Your task to perform on an android device: toggle notifications settings in the gmail app Image 0: 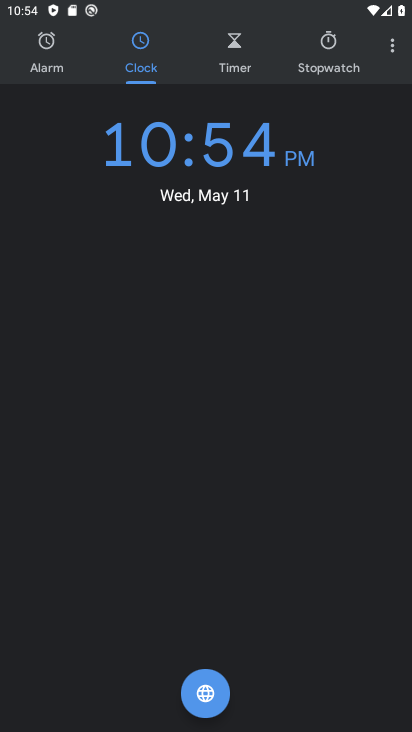
Step 0: press home button
Your task to perform on an android device: toggle notifications settings in the gmail app Image 1: 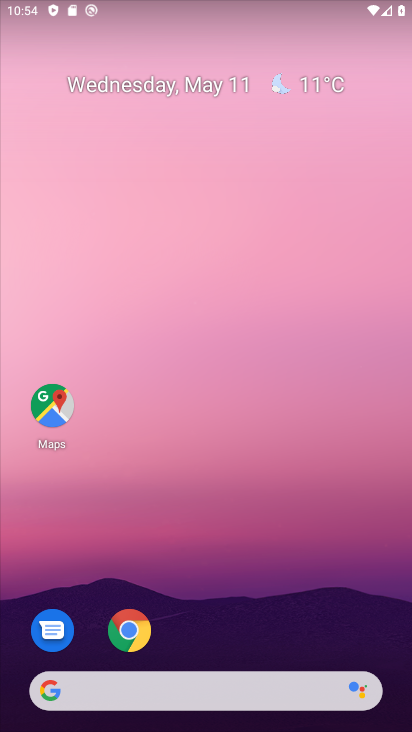
Step 1: drag from (179, 643) to (224, 308)
Your task to perform on an android device: toggle notifications settings in the gmail app Image 2: 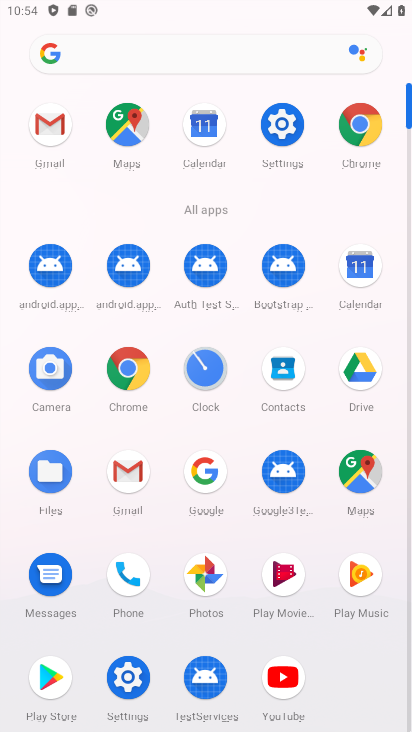
Step 2: click (125, 473)
Your task to perform on an android device: toggle notifications settings in the gmail app Image 3: 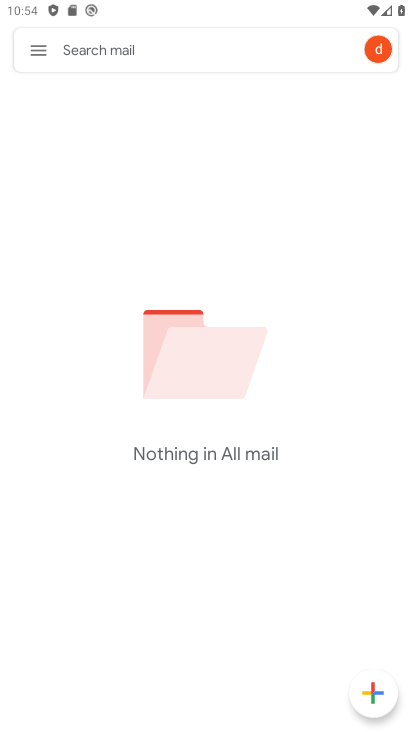
Step 3: click (44, 61)
Your task to perform on an android device: toggle notifications settings in the gmail app Image 4: 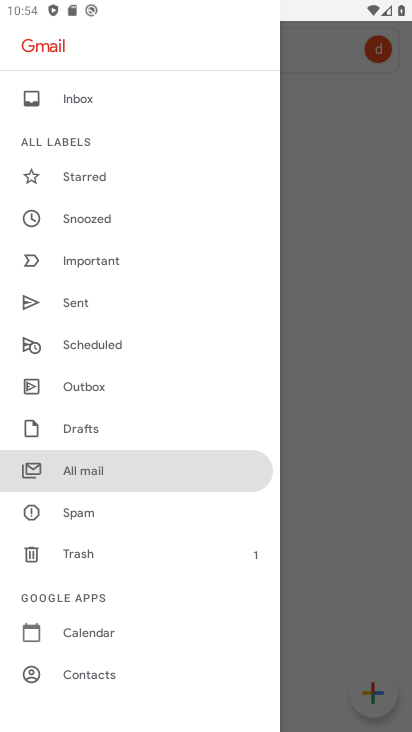
Step 4: drag from (124, 652) to (164, 378)
Your task to perform on an android device: toggle notifications settings in the gmail app Image 5: 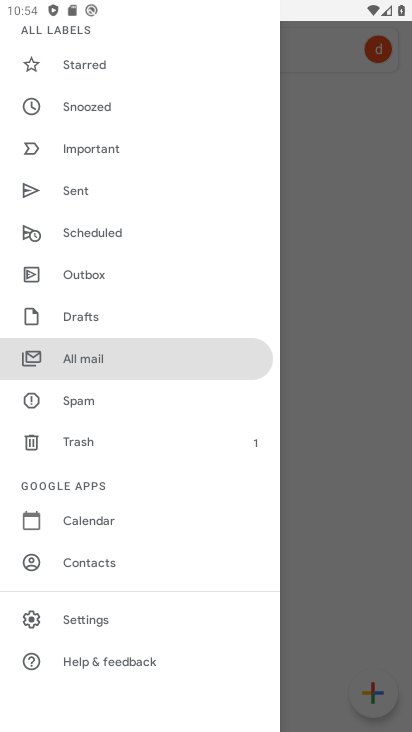
Step 5: click (105, 616)
Your task to perform on an android device: toggle notifications settings in the gmail app Image 6: 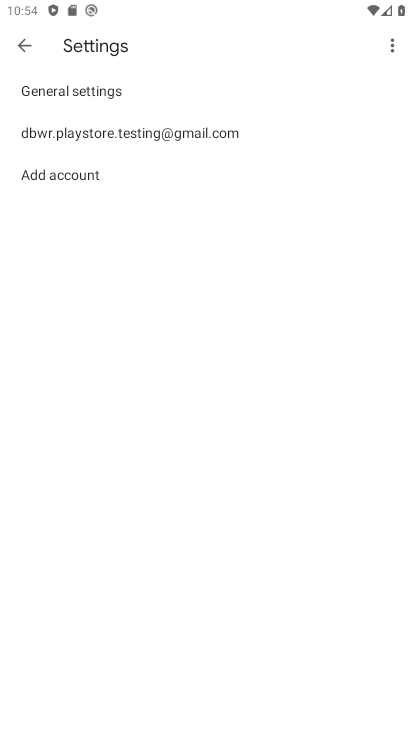
Step 6: click (138, 138)
Your task to perform on an android device: toggle notifications settings in the gmail app Image 7: 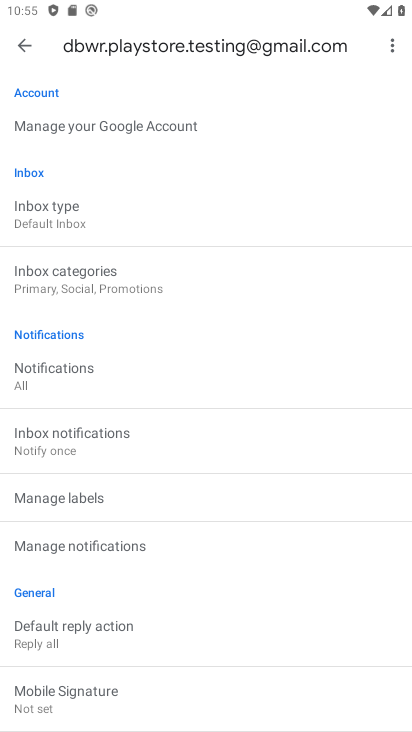
Step 7: click (66, 375)
Your task to perform on an android device: toggle notifications settings in the gmail app Image 8: 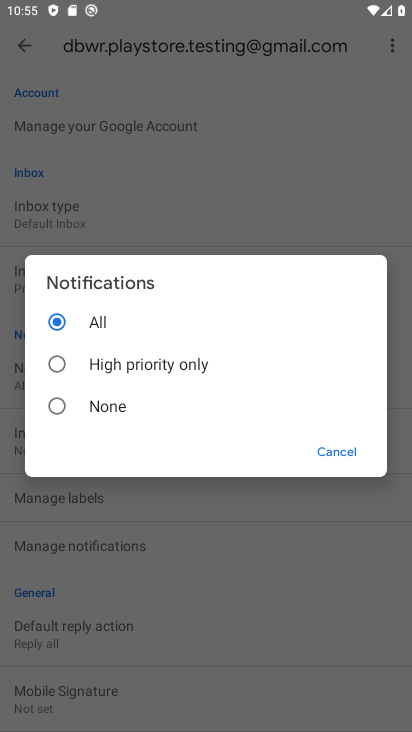
Step 8: click (77, 399)
Your task to perform on an android device: toggle notifications settings in the gmail app Image 9: 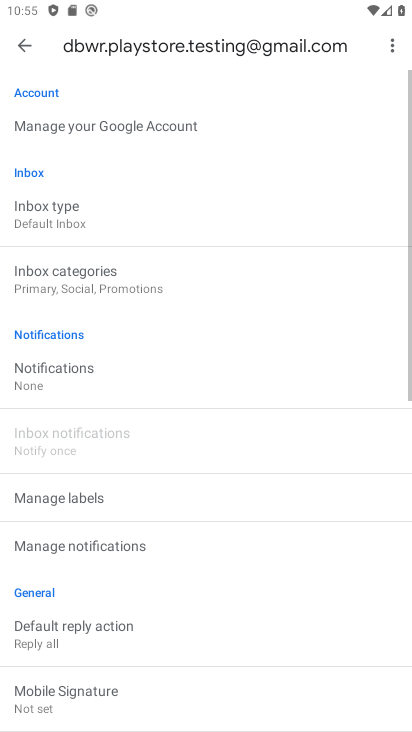
Step 9: task complete